Your task to perform on an android device: add a label to a message in the gmail app Image 0: 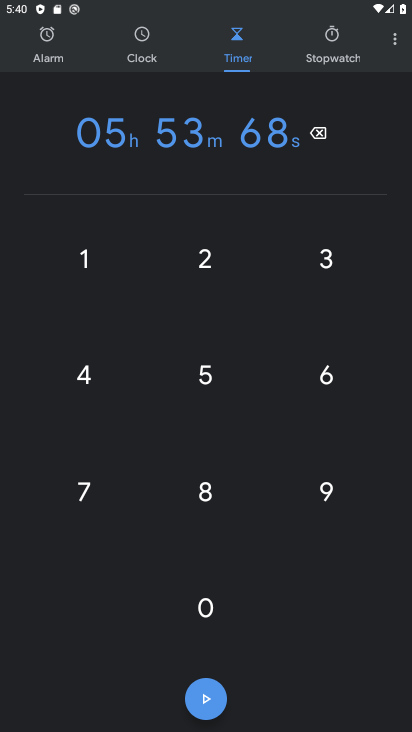
Step 0: press home button
Your task to perform on an android device: add a label to a message in the gmail app Image 1: 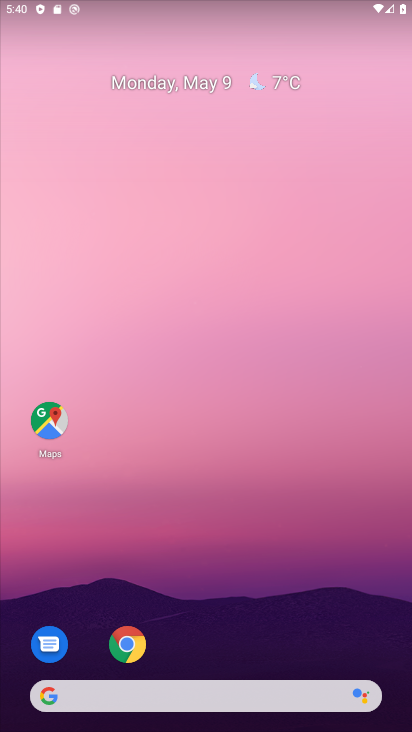
Step 1: drag from (242, 504) to (180, 35)
Your task to perform on an android device: add a label to a message in the gmail app Image 2: 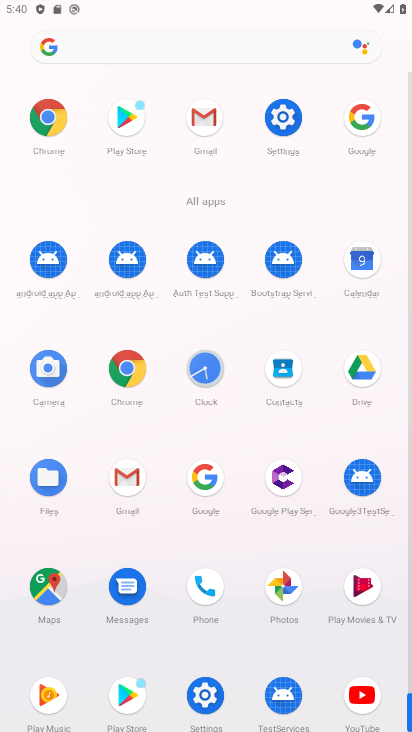
Step 2: click (205, 127)
Your task to perform on an android device: add a label to a message in the gmail app Image 3: 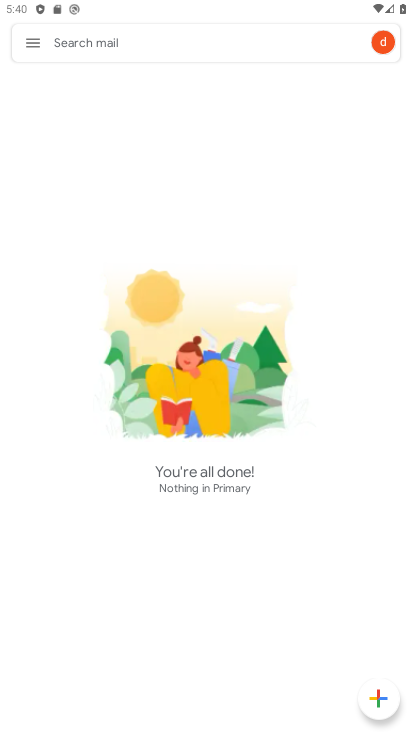
Step 3: click (28, 40)
Your task to perform on an android device: add a label to a message in the gmail app Image 4: 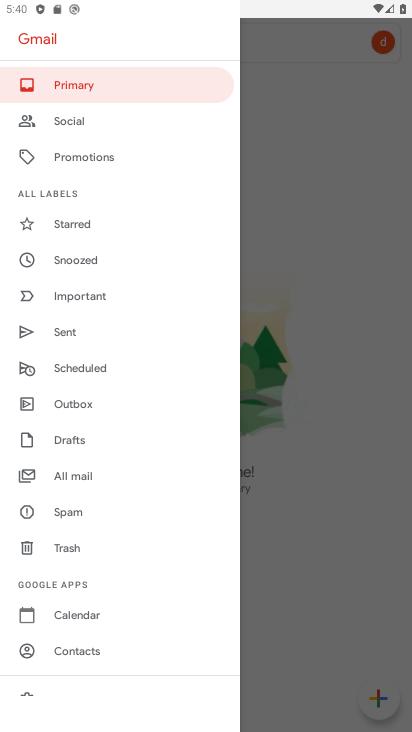
Step 4: click (75, 478)
Your task to perform on an android device: add a label to a message in the gmail app Image 5: 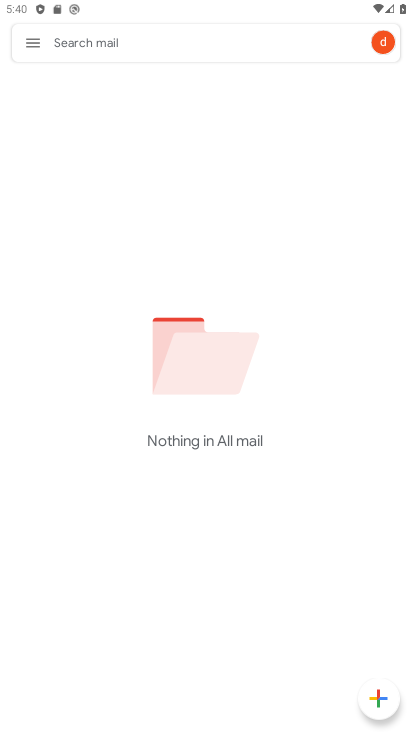
Step 5: press home button
Your task to perform on an android device: add a label to a message in the gmail app Image 6: 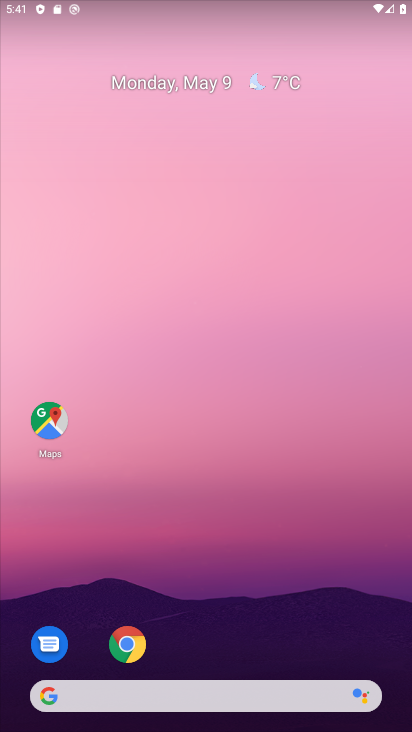
Step 6: drag from (215, 599) to (174, 125)
Your task to perform on an android device: add a label to a message in the gmail app Image 7: 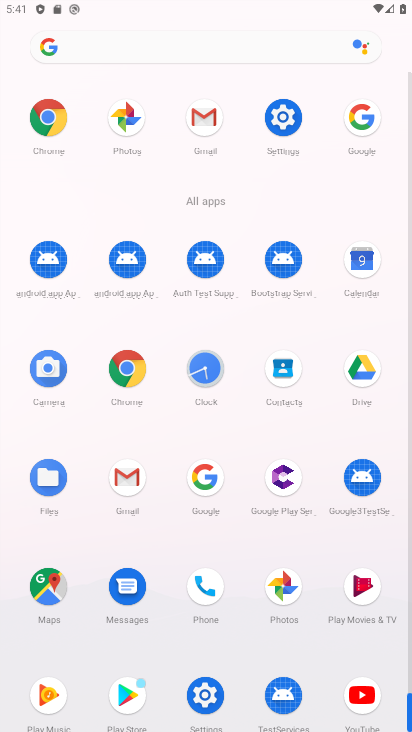
Step 7: click (120, 530)
Your task to perform on an android device: add a label to a message in the gmail app Image 8: 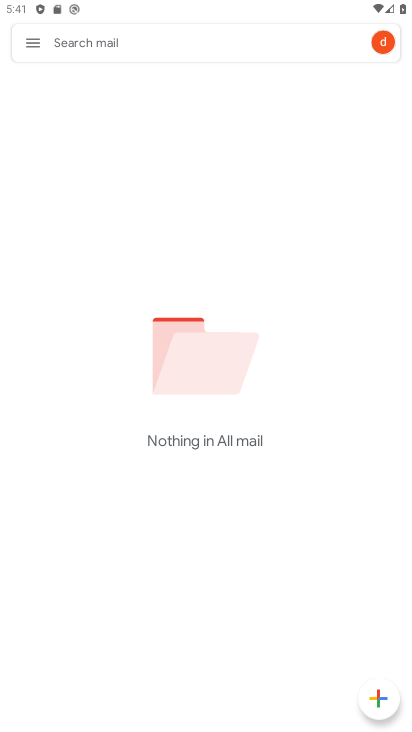
Step 8: click (33, 46)
Your task to perform on an android device: add a label to a message in the gmail app Image 9: 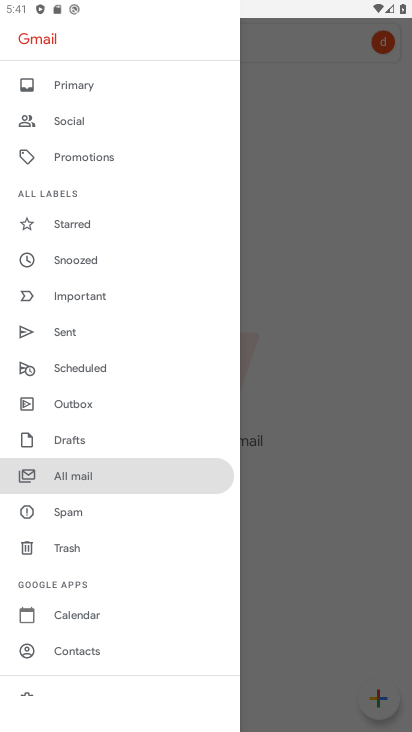
Step 9: click (374, 286)
Your task to perform on an android device: add a label to a message in the gmail app Image 10: 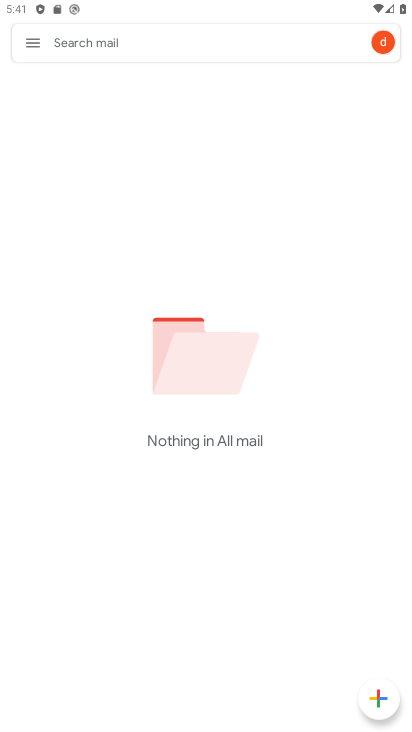
Step 10: task complete